Your task to perform on an android device: What's the weather today? Image 0: 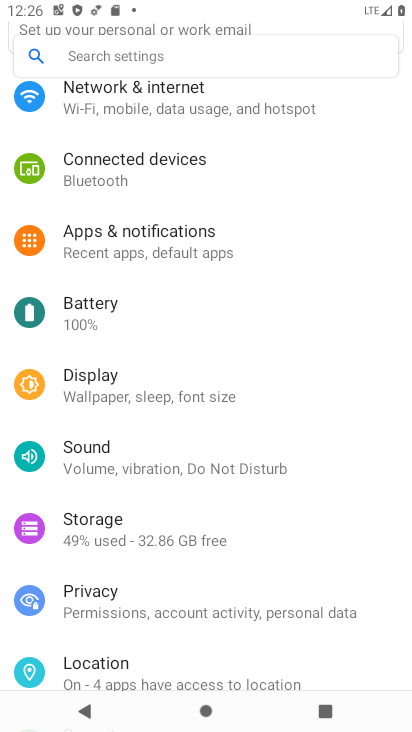
Step 0: press home button
Your task to perform on an android device: What's the weather today? Image 1: 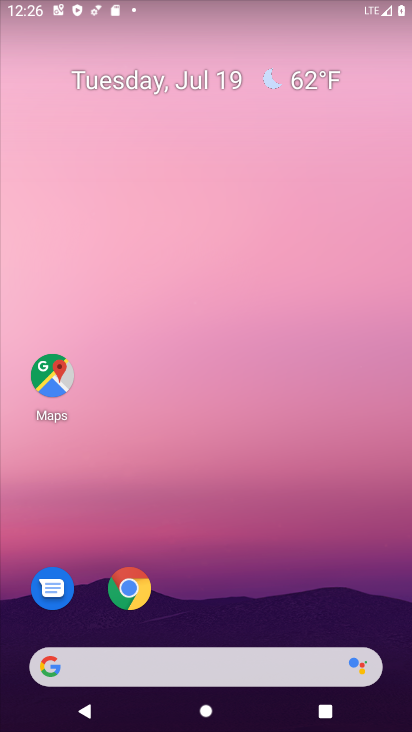
Step 1: click (160, 675)
Your task to perform on an android device: What's the weather today? Image 2: 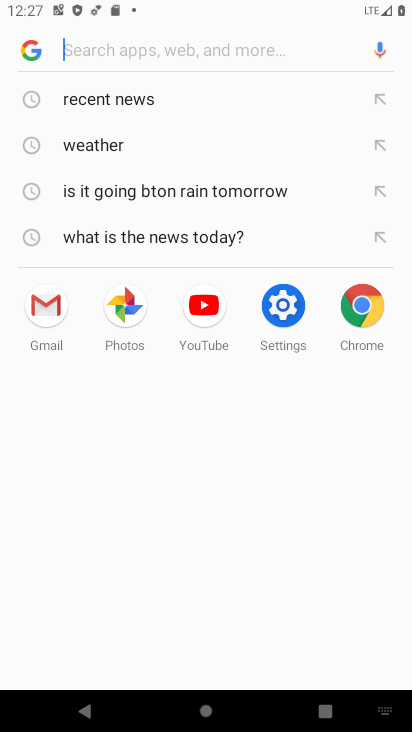
Step 2: type "what's the weather today"
Your task to perform on an android device: What's the weather today? Image 3: 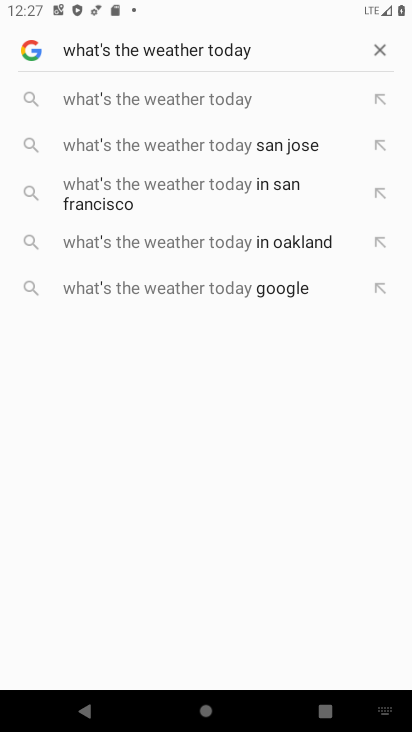
Step 3: click (247, 84)
Your task to perform on an android device: What's the weather today? Image 4: 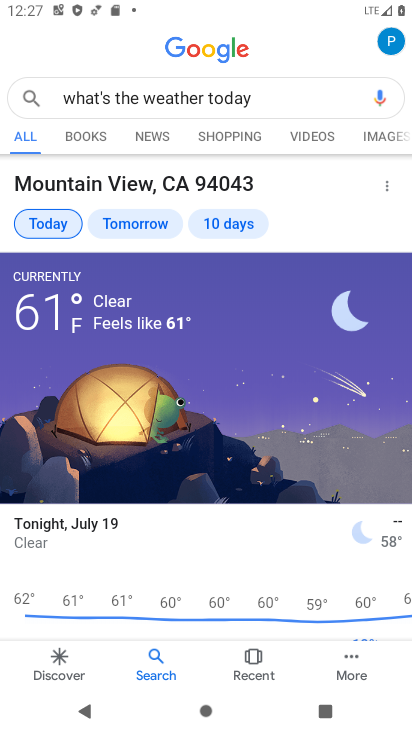
Step 4: task complete